Your task to perform on an android device: remove spam from my inbox in the gmail app Image 0: 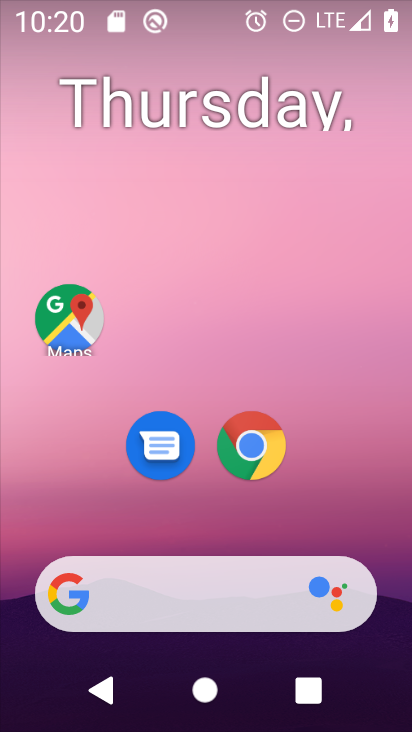
Step 0: drag from (390, 628) to (280, 42)
Your task to perform on an android device: remove spam from my inbox in the gmail app Image 1: 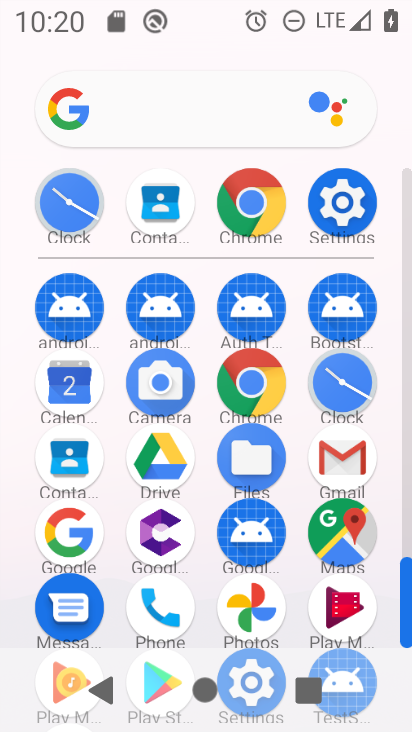
Step 1: click (334, 470)
Your task to perform on an android device: remove spam from my inbox in the gmail app Image 2: 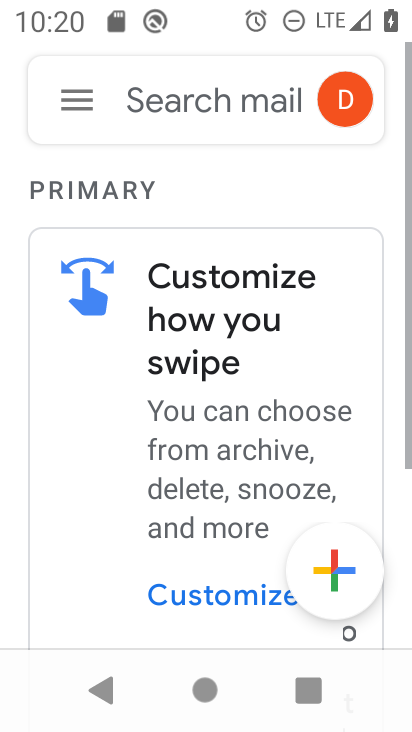
Step 2: click (58, 83)
Your task to perform on an android device: remove spam from my inbox in the gmail app Image 3: 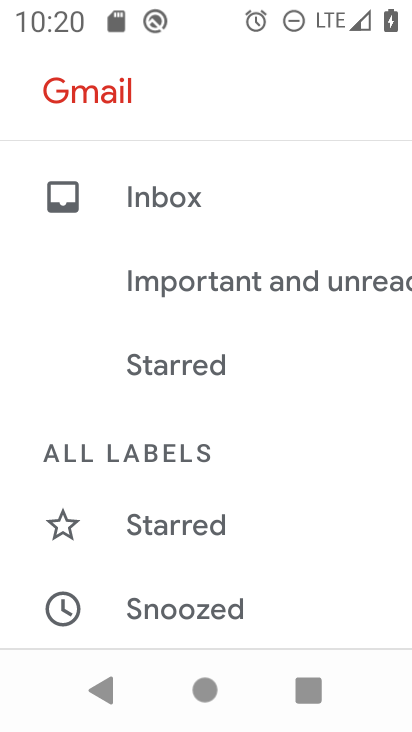
Step 3: drag from (226, 586) to (217, 76)
Your task to perform on an android device: remove spam from my inbox in the gmail app Image 4: 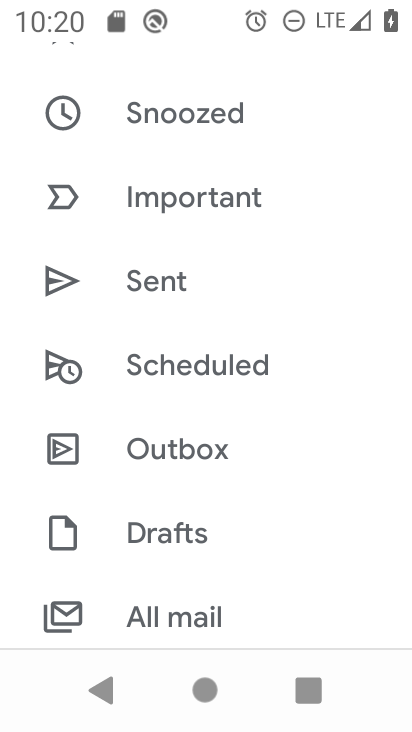
Step 4: drag from (240, 596) to (238, 67)
Your task to perform on an android device: remove spam from my inbox in the gmail app Image 5: 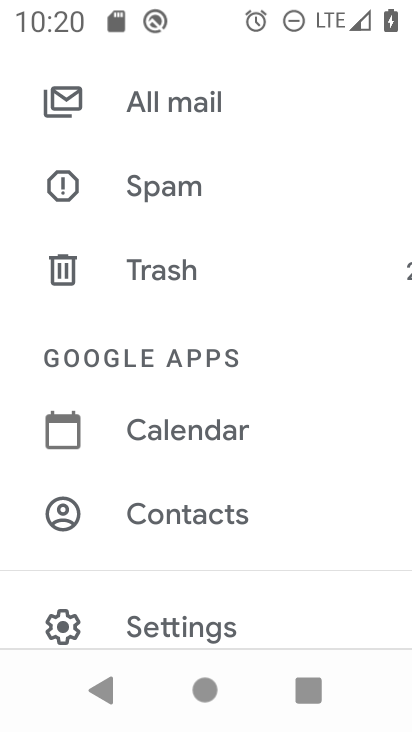
Step 5: click (262, 178)
Your task to perform on an android device: remove spam from my inbox in the gmail app Image 6: 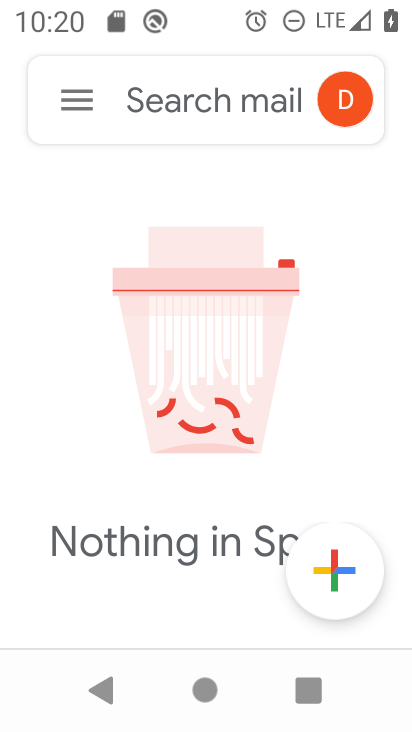
Step 6: task complete